Your task to perform on an android device: What's on my calendar tomorrow? Image 0: 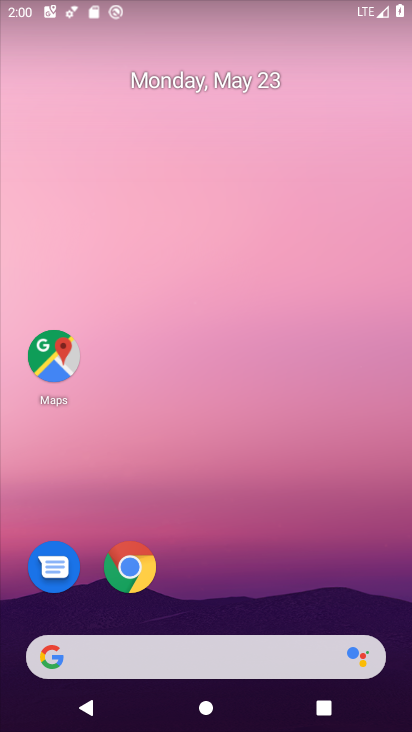
Step 0: drag from (273, 590) to (286, 174)
Your task to perform on an android device: What's on my calendar tomorrow? Image 1: 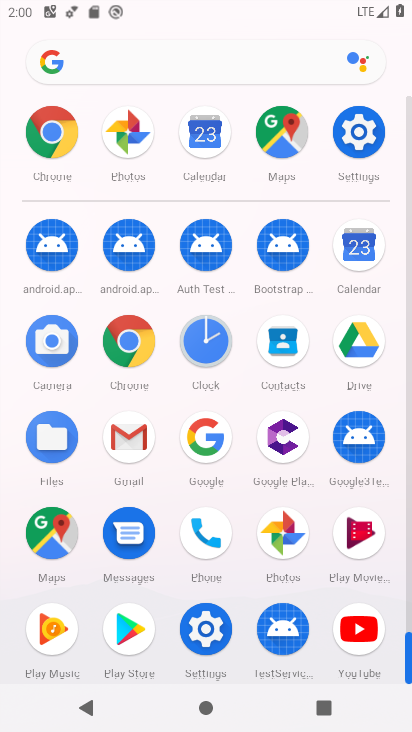
Step 1: click (350, 255)
Your task to perform on an android device: What's on my calendar tomorrow? Image 2: 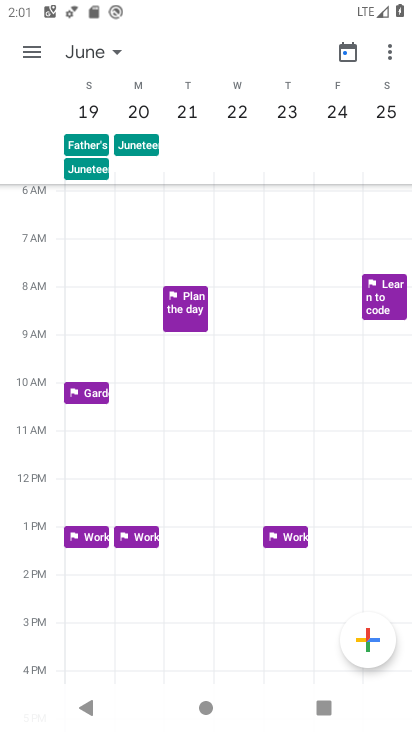
Step 2: click (119, 54)
Your task to perform on an android device: What's on my calendar tomorrow? Image 3: 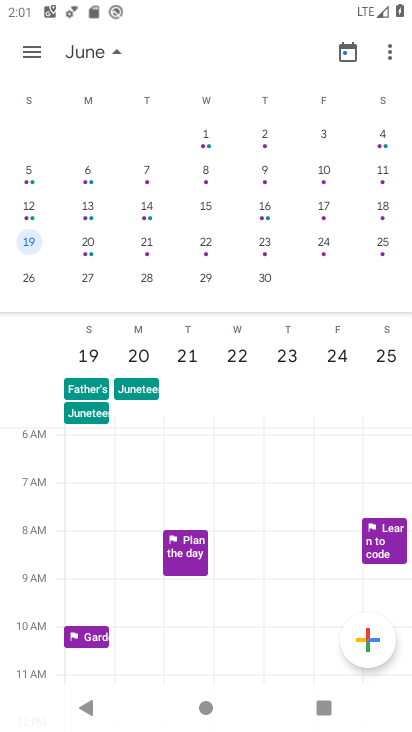
Step 3: drag from (57, 240) to (390, 232)
Your task to perform on an android device: What's on my calendar tomorrow? Image 4: 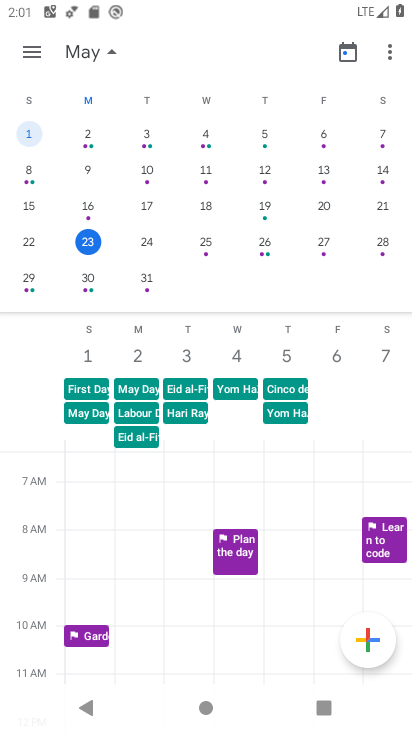
Step 4: click (140, 242)
Your task to perform on an android device: What's on my calendar tomorrow? Image 5: 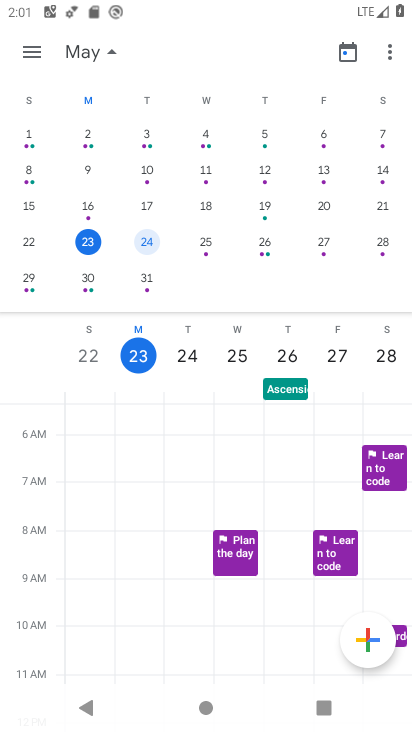
Step 5: click (107, 55)
Your task to perform on an android device: What's on my calendar tomorrow? Image 6: 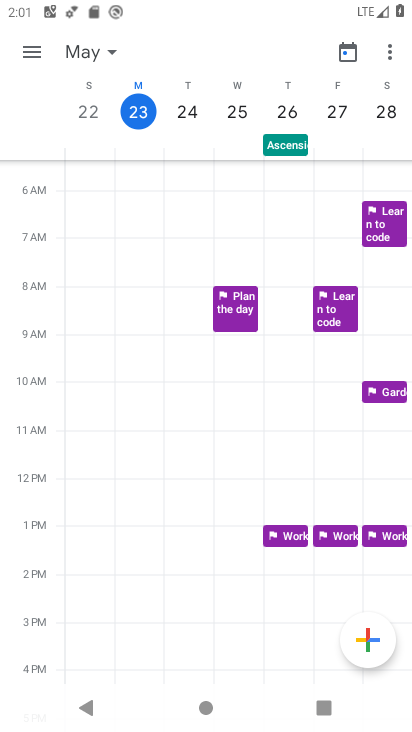
Step 6: click (181, 121)
Your task to perform on an android device: What's on my calendar tomorrow? Image 7: 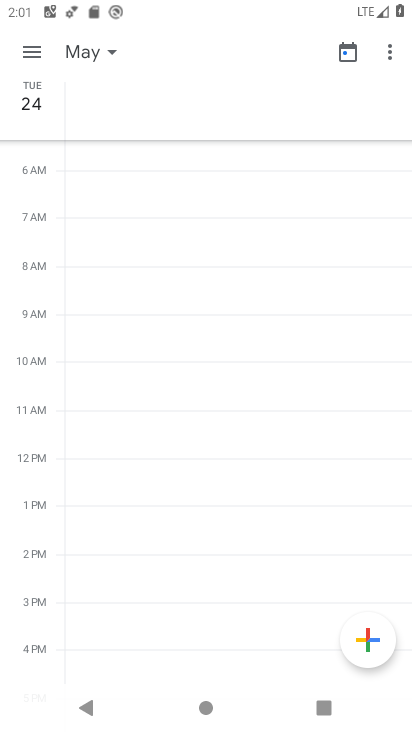
Step 7: task complete